Your task to perform on an android device: When is my next appointment? Image 0: 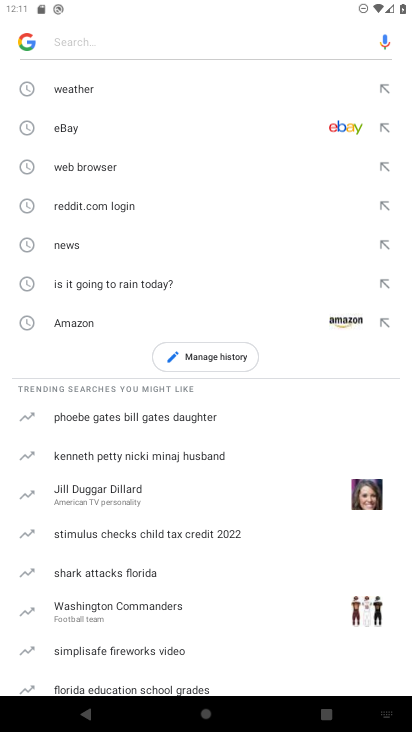
Step 0: press home button
Your task to perform on an android device: When is my next appointment? Image 1: 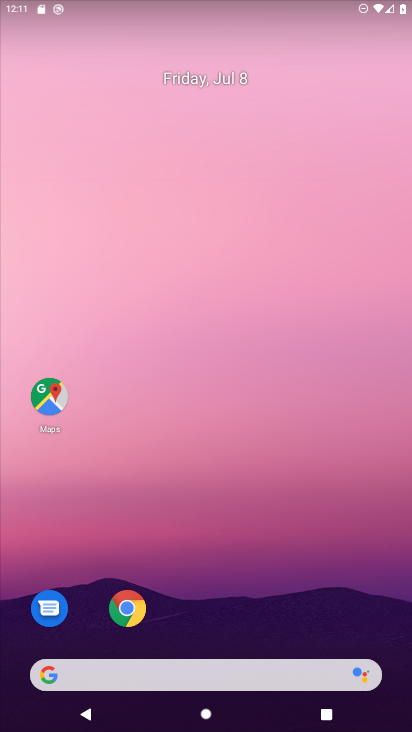
Step 1: drag from (241, 726) to (238, 123)
Your task to perform on an android device: When is my next appointment? Image 2: 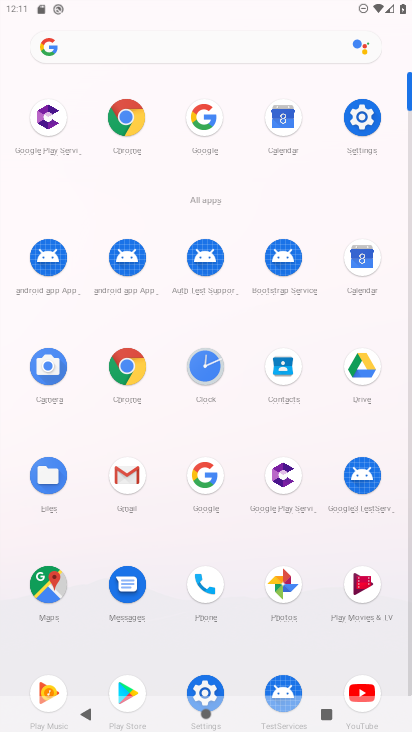
Step 2: click (360, 261)
Your task to perform on an android device: When is my next appointment? Image 3: 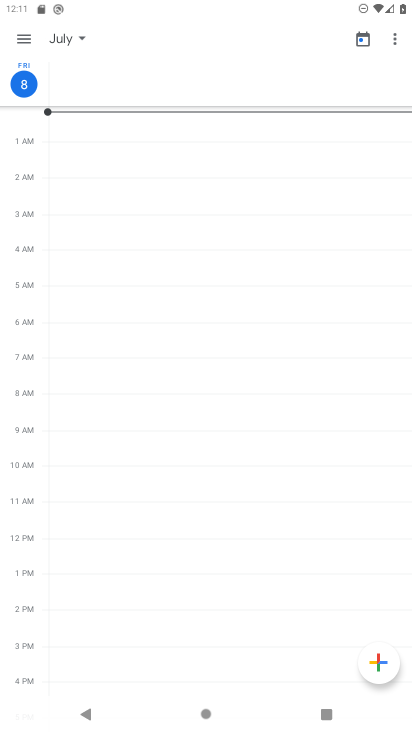
Step 3: click (83, 36)
Your task to perform on an android device: When is my next appointment? Image 4: 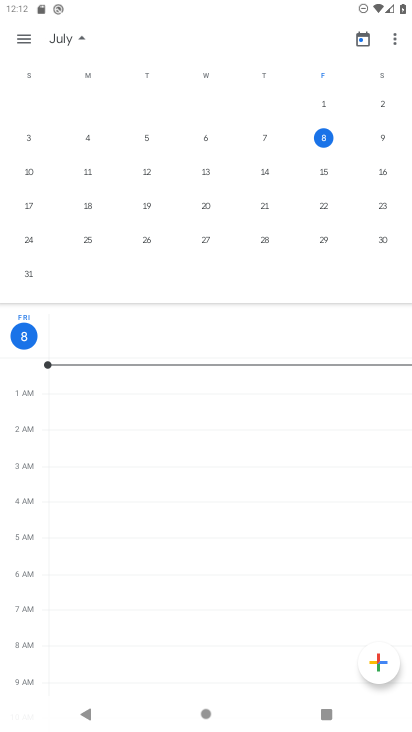
Step 4: click (381, 134)
Your task to perform on an android device: When is my next appointment? Image 5: 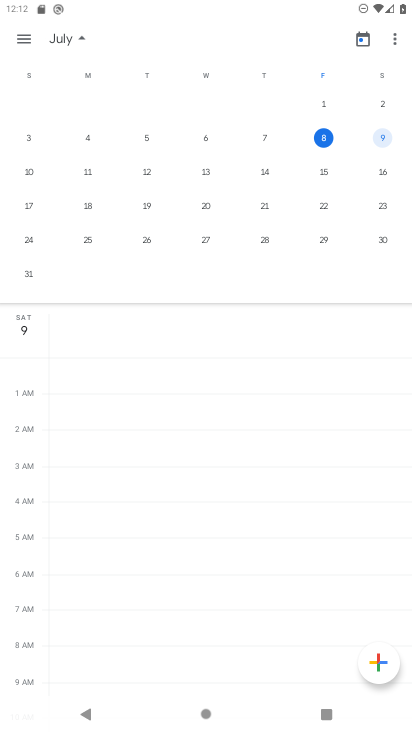
Step 5: click (381, 134)
Your task to perform on an android device: When is my next appointment? Image 6: 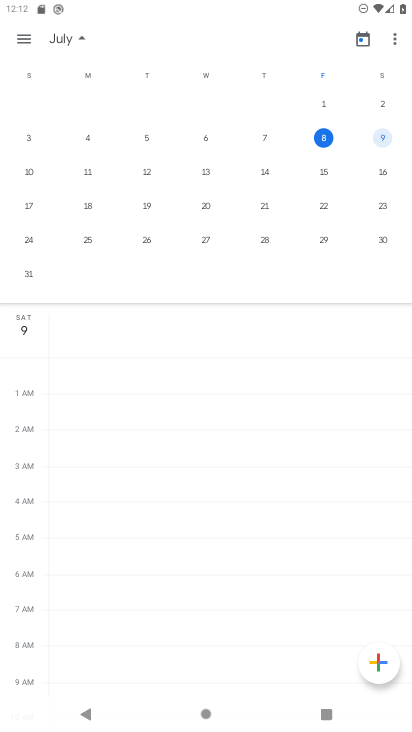
Step 6: click (381, 134)
Your task to perform on an android device: When is my next appointment? Image 7: 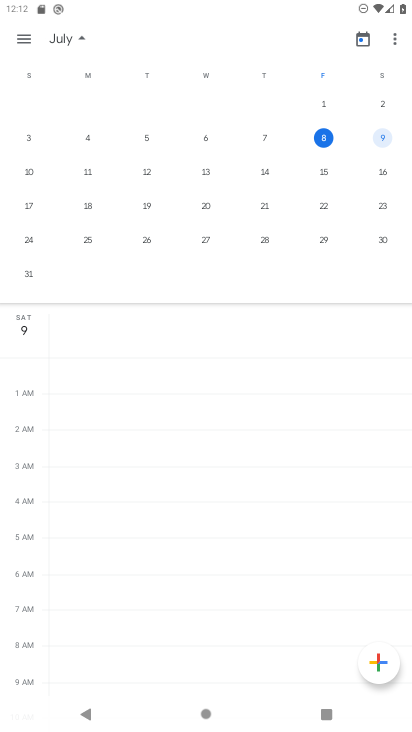
Step 7: click (381, 134)
Your task to perform on an android device: When is my next appointment? Image 8: 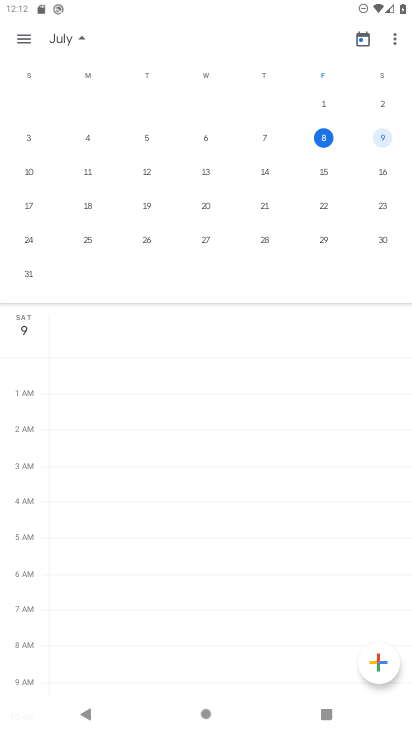
Step 8: task complete